Your task to perform on an android device: Open eBay Image 0: 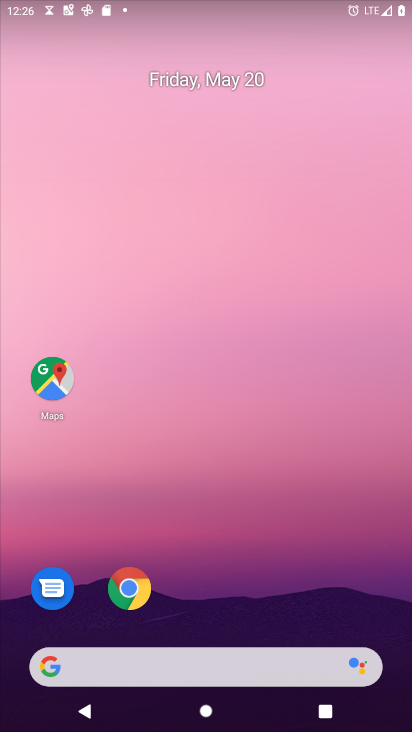
Step 0: click (137, 583)
Your task to perform on an android device: Open eBay Image 1: 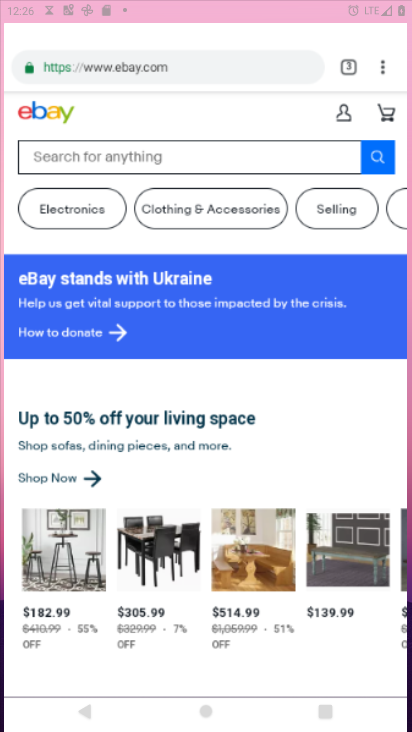
Step 1: click (135, 592)
Your task to perform on an android device: Open eBay Image 2: 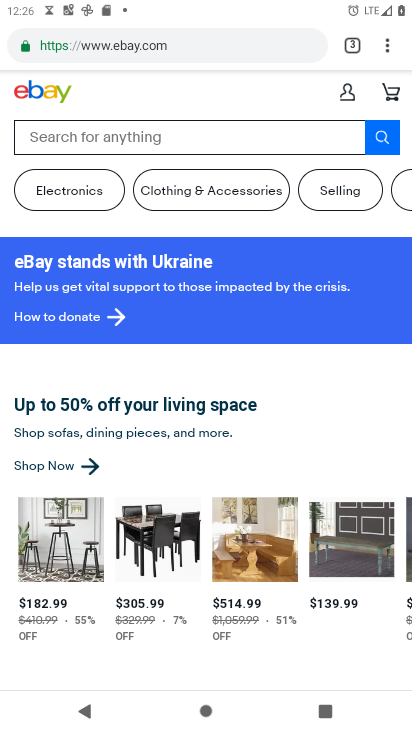
Step 2: task complete